Your task to perform on an android device: Show me popular games on the Play Store Image 0: 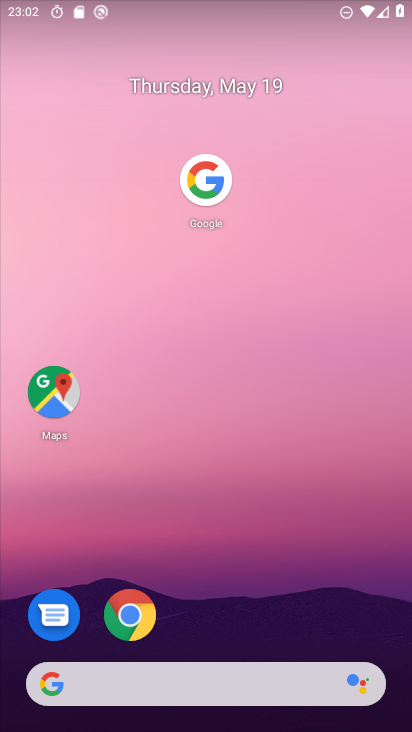
Step 0: drag from (296, 592) to (271, 156)
Your task to perform on an android device: Show me popular games on the Play Store Image 1: 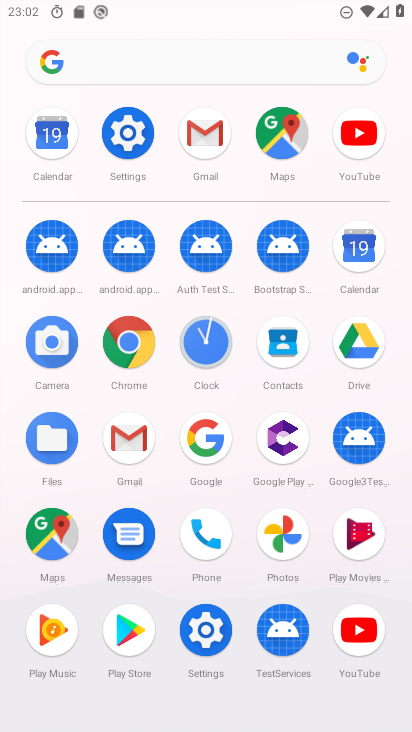
Step 1: click (133, 627)
Your task to perform on an android device: Show me popular games on the Play Store Image 2: 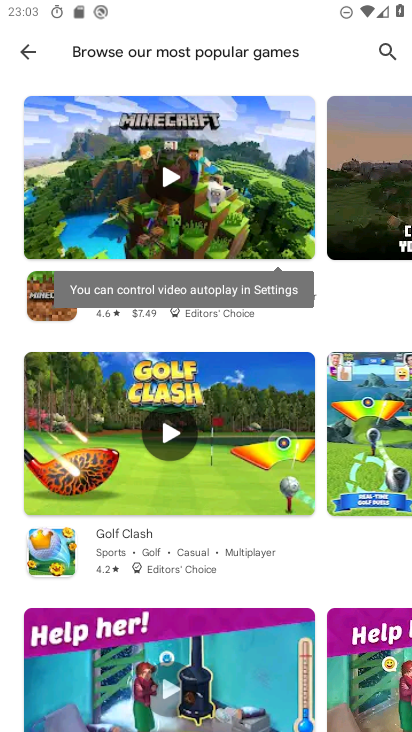
Step 2: task complete